Your task to perform on an android device: What's the weather? Image 0: 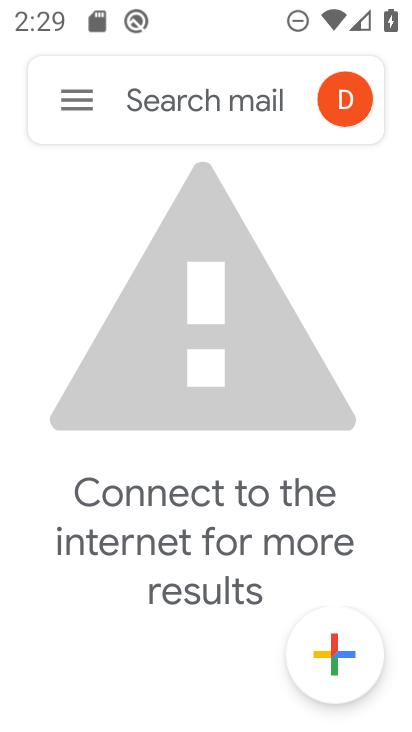
Step 0: press home button
Your task to perform on an android device: What's the weather? Image 1: 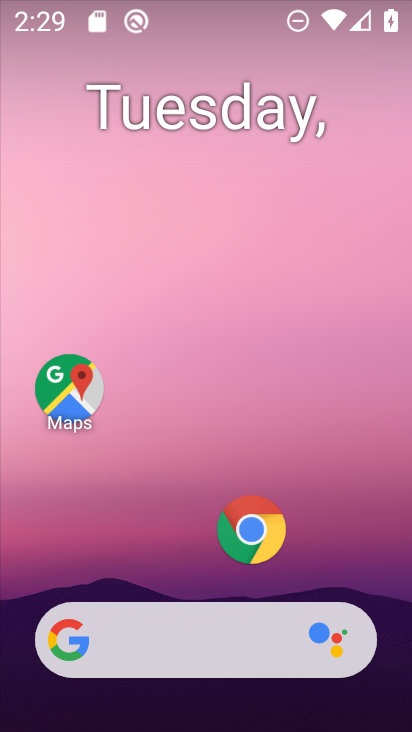
Step 1: drag from (232, 689) to (289, 187)
Your task to perform on an android device: What's the weather? Image 2: 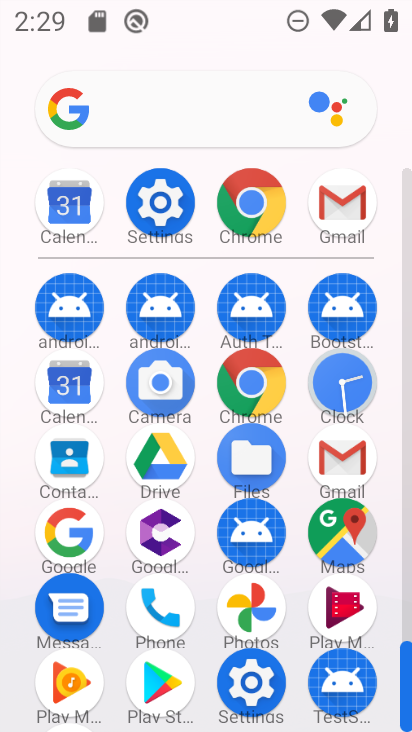
Step 2: click (162, 122)
Your task to perform on an android device: What's the weather? Image 3: 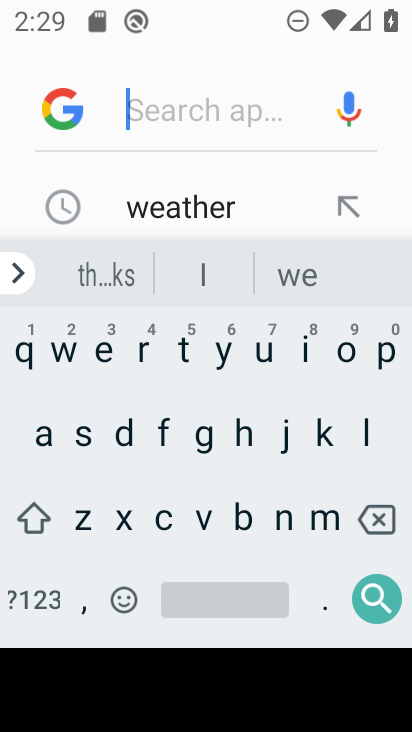
Step 3: click (169, 193)
Your task to perform on an android device: What's the weather? Image 4: 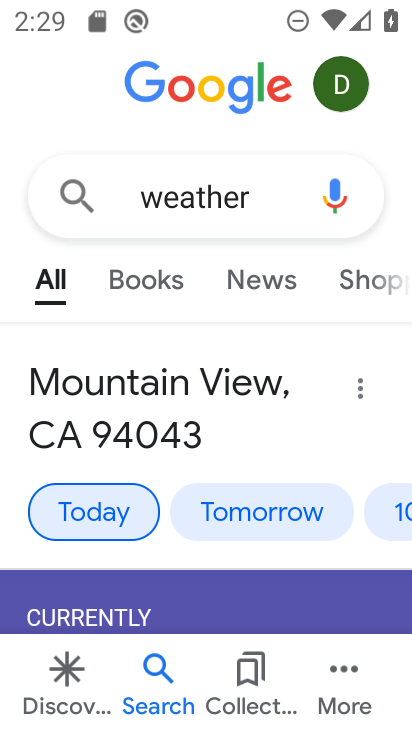
Step 4: task complete